Your task to perform on an android device: Turn on the flashlight Image 0: 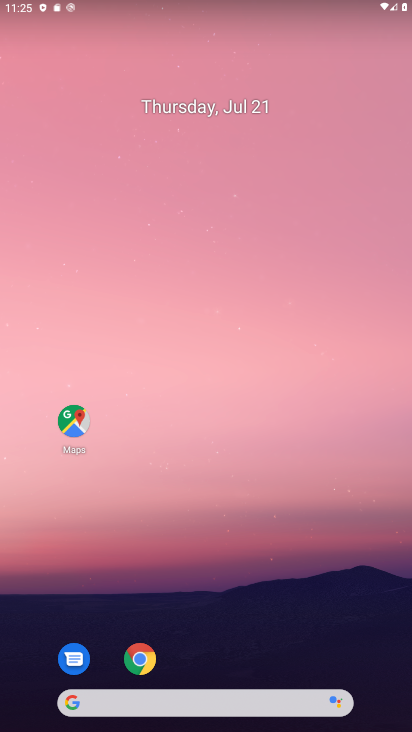
Step 0: task complete